Your task to perform on an android device: clear all cookies in the chrome app Image 0: 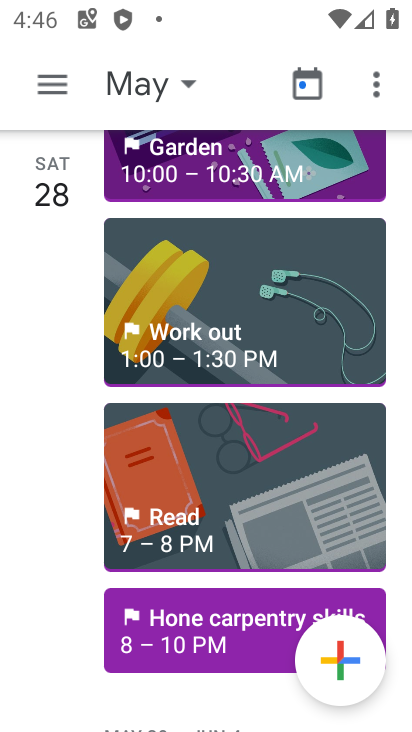
Step 0: press back button
Your task to perform on an android device: clear all cookies in the chrome app Image 1: 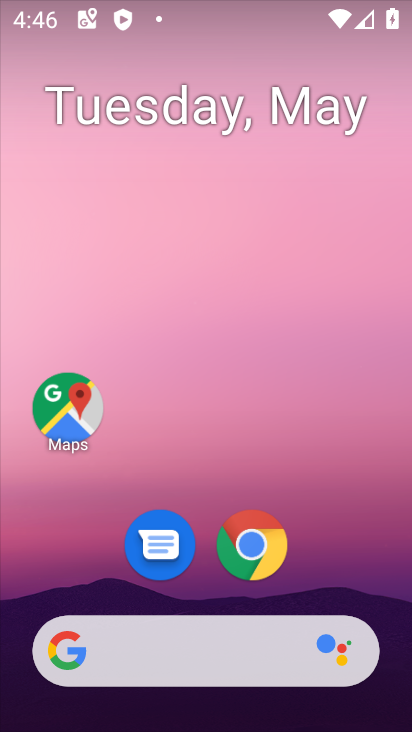
Step 1: drag from (370, 585) to (266, 14)
Your task to perform on an android device: clear all cookies in the chrome app Image 2: 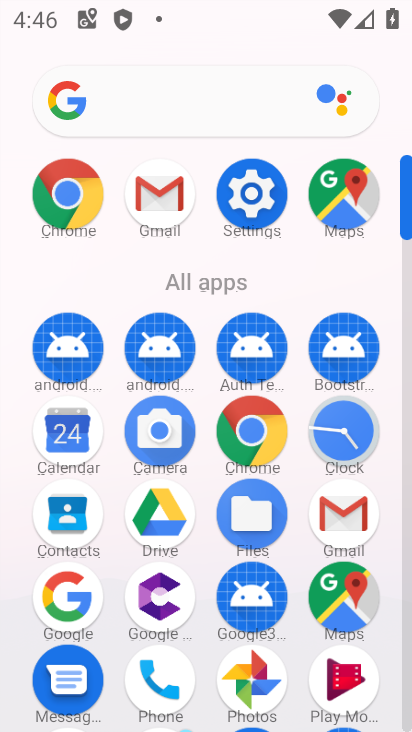
Step 2: drag from (4, 619) to (17, 244)
Your task to perform on an android device: clear all cookies in the chrome app Image 3: 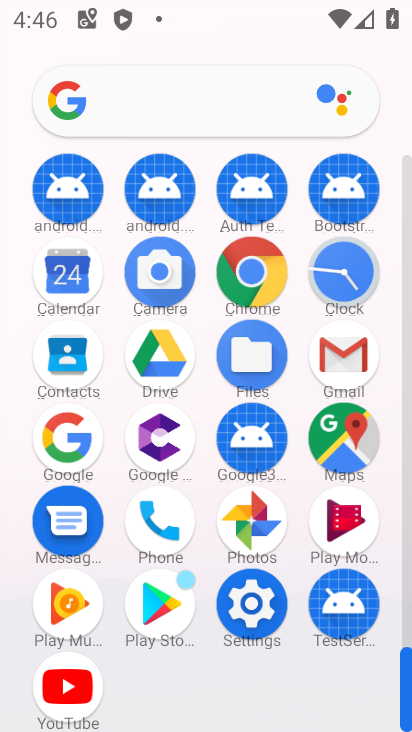
Step 3: drag from (7, 640) to (7, 251)
Your task to perform on an android device: clear all cookies in the chrome app Image 4: 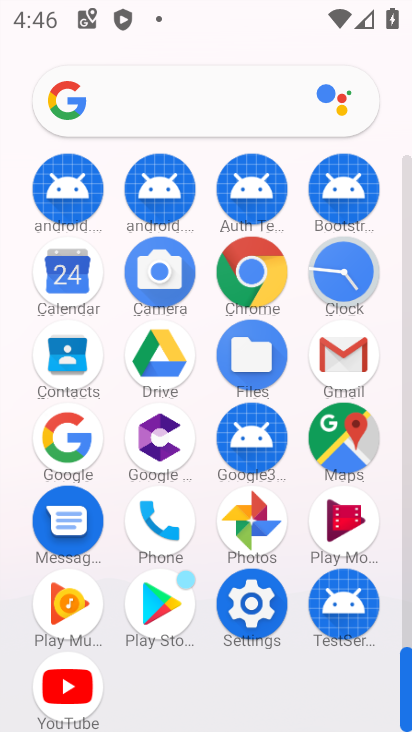
Step 4: click (241, 254)
Your task to perform on an android device: clear all cookies in the chrome app Image 5: 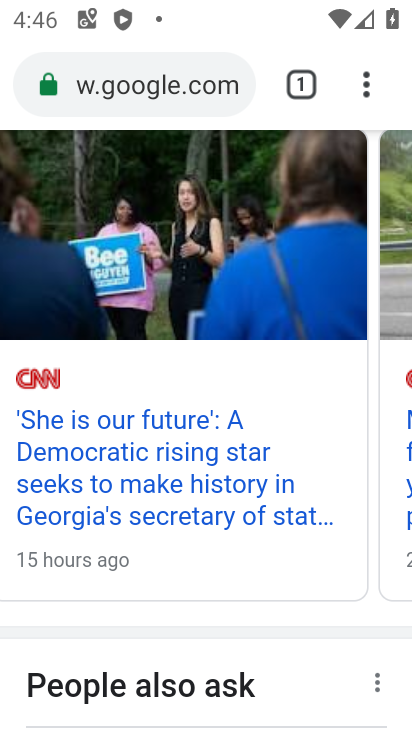
Step 5: drag from (373, 86) to (268, 593)
Your task to perform on an android device: clear all cookies in the chrome app Image 6: 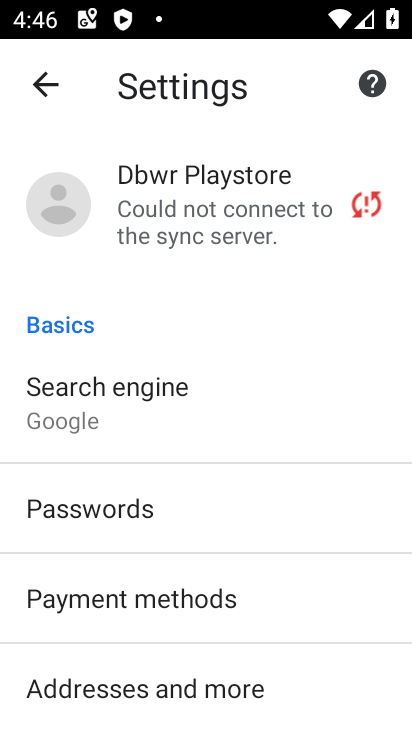
Step 6: drag from (227, 584) to (249, 177)
Your task to perform on an android device: clear all cookies in the chrome app Image 7: 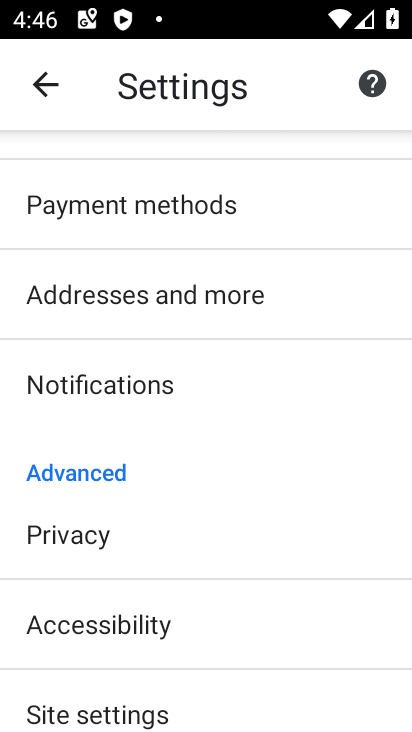
Step 7: drag from (251, 557) to (247, 210)
Your task to perform on an android device: clear all cookies in the chrome app Image 8: 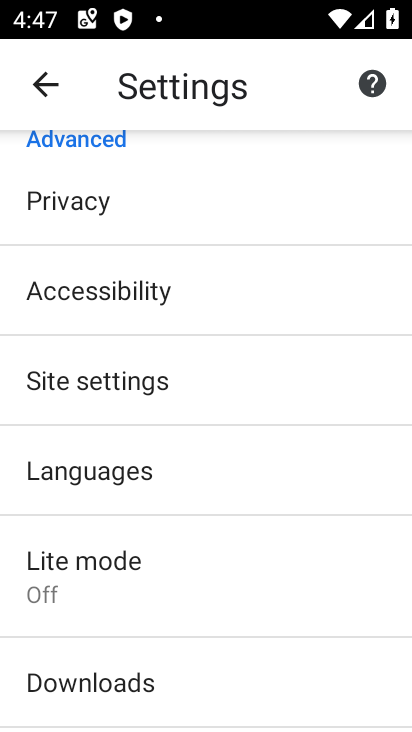
Step 8: drag from (204, 600) to (208, 337)
Your task to perform on an android device: clear all cookies in the chrome app Image 9: 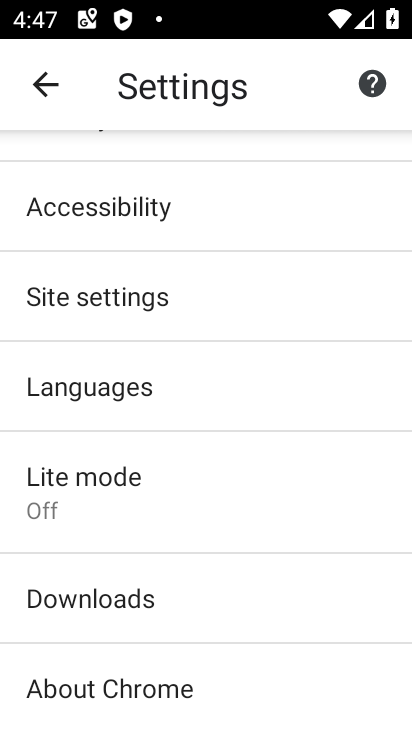
Step 9: drag from (246, 603) to (246, 202)
Your task to perform on an android device: clear all cookies in the chrome app Image 10: 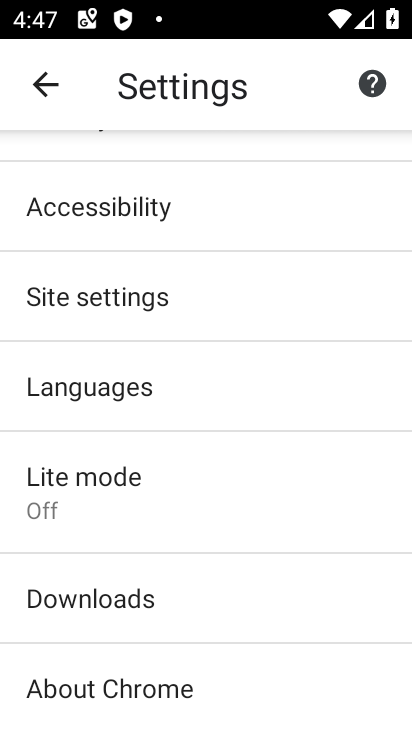
Step 10: drag from (305, 287) to (296, 599)
Your task to perform on an android device: clear all cookies in the chrome app Image 11: 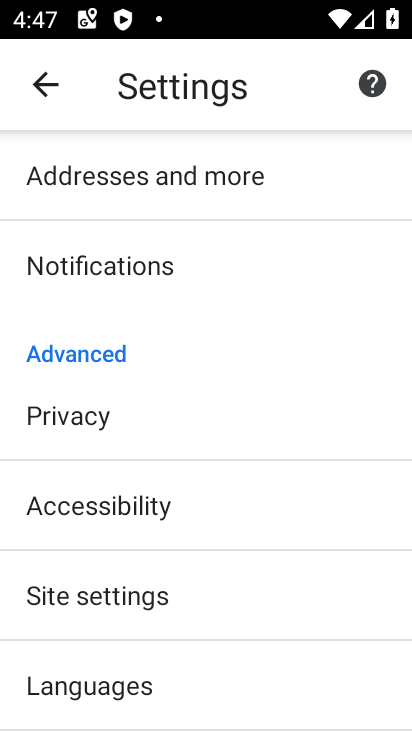
Step 11: drag from (253, 265) to (223, 637)
Your task to perform on an android device: clear all cookies in the chrome app Image 12: 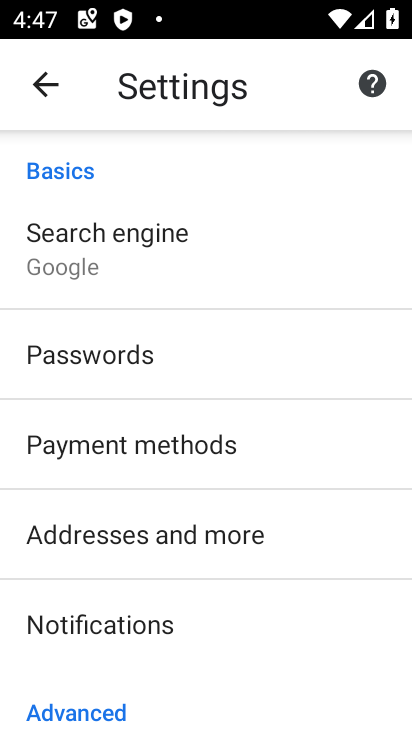
Step 12: drag from (214, 277) to (225, 604)
Your task to perform on an android device: clear all cookies in the chrome app Image 13: 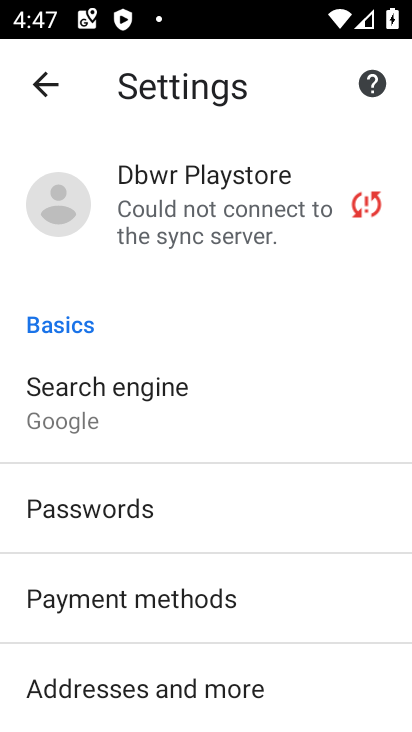
Step 13: drag from (244, 593) to (276, 245)
Your task to perform on an android device: clear all cookies in the chrome app Image 14: 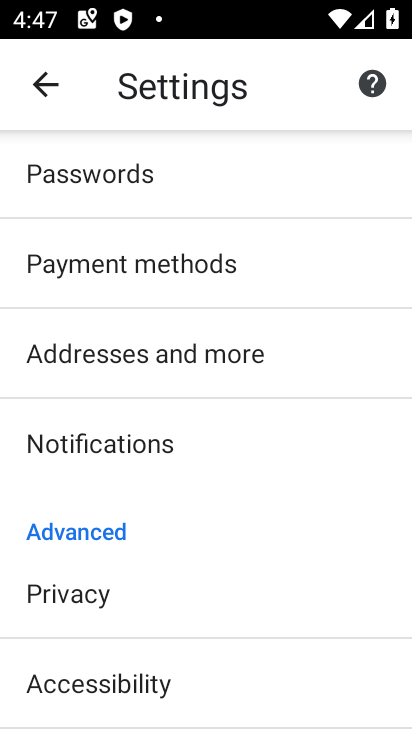
Step 14: drag from (246, 593) to (272, 283)
Your task to perform on an android device: clear all cookies in the chrome app Image 15: 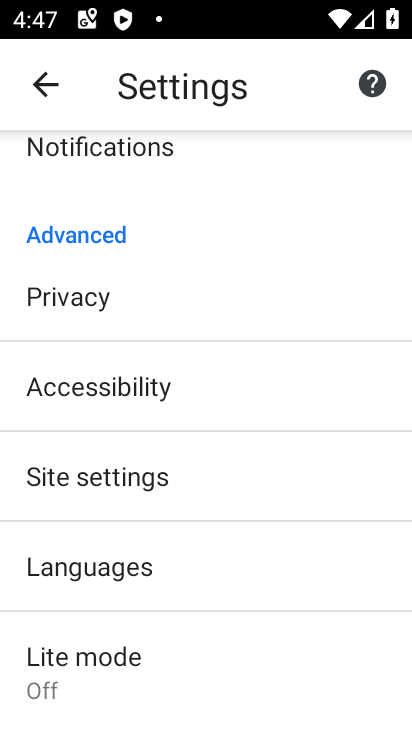
Step 15: click (142, 307)
Your task to perform on an android device: clear all cookies in the chrome app Image 16: 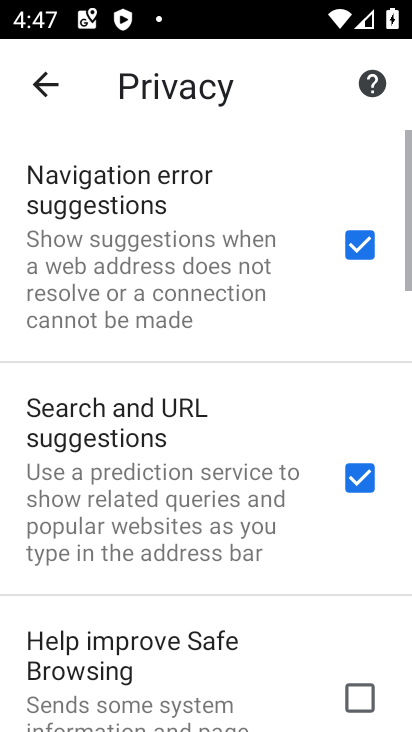
Step 16: drag from (234, 655) to (266, 135)
Your task to perform on an android device: clear all cookies in the chrome app Image 17: 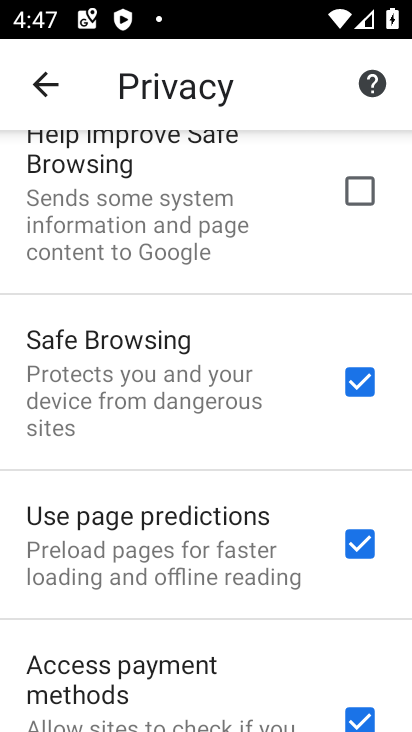
Step 17: drag from (120, 581) to (179, 136)
Your task to perform on an android device: clear all cookies in the chrome app Image 18: 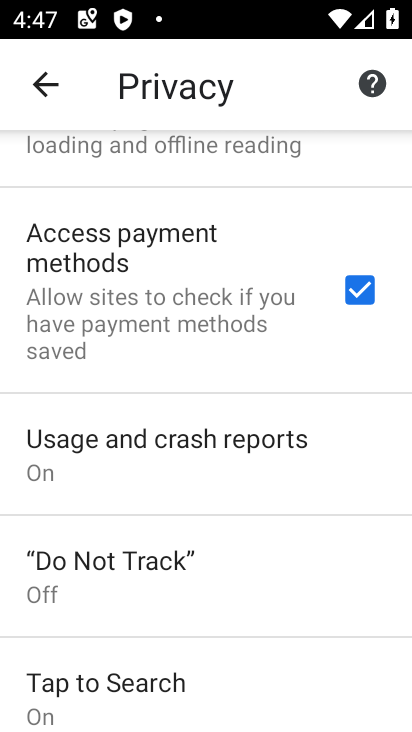
Step 18: drag from (141, 622) to (192, 159)
Your task to perform on an android device: clear all cookies in the chrome app Image 19: 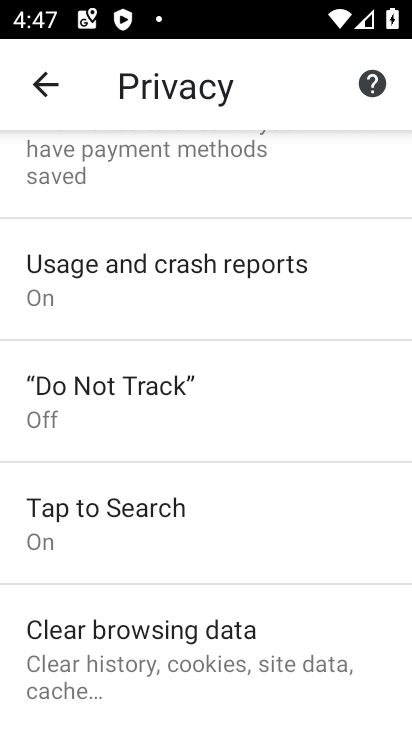
Step 19: click (145, 567)
Your task to perform on an android device: clear all cookies in the chrome app Image 20: 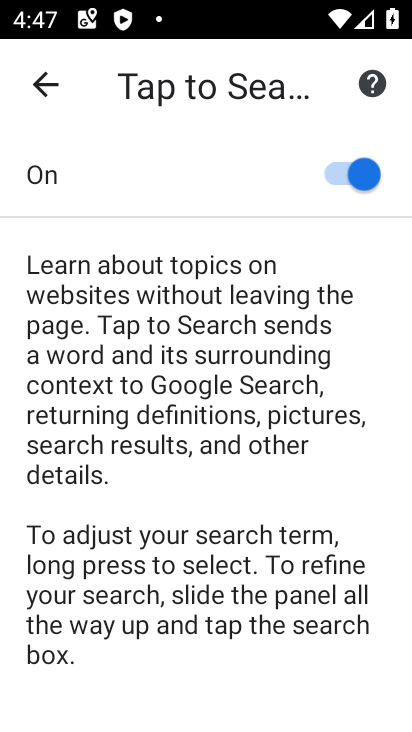
Step 20: click (74, 95)
Your task to perform on an android device: clear all cookies in the chrome app Image 21: 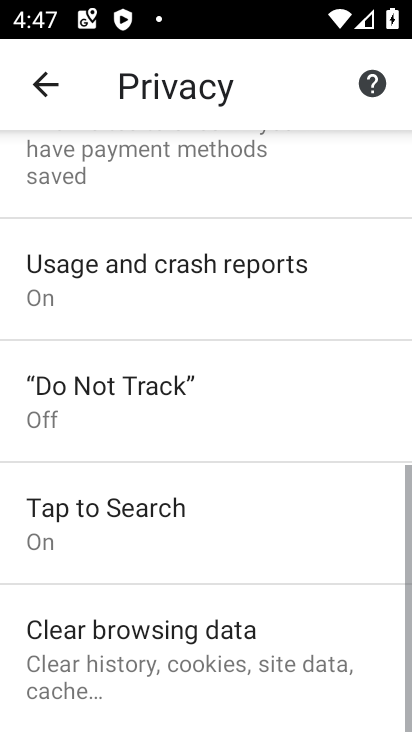
Step 21: click (94, 669)
Your task to perform on an android device: clear all cookies in the chrome app Image 22: 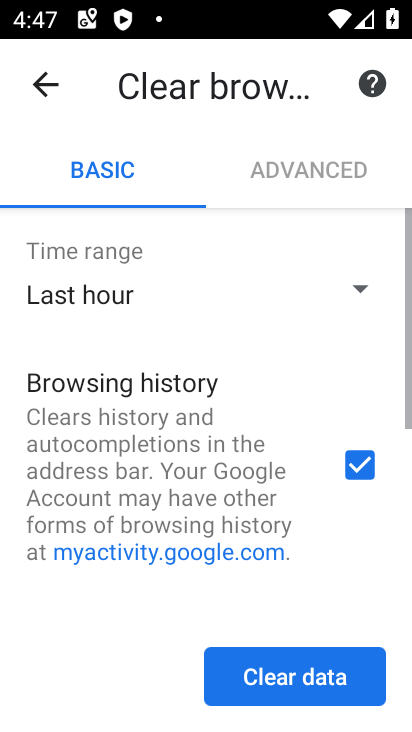
Step 22: drag from (174, 578) to (237, 199)
Your task to perform on an android device: clear all cookies in the chrome app Image 23: 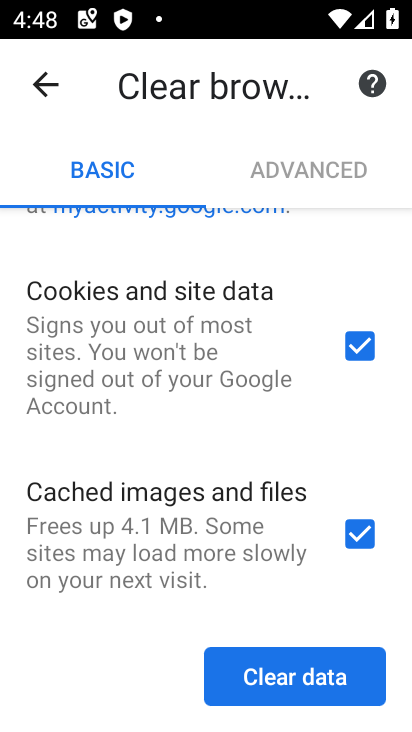
Step 23: click (360, 521)
Your task to perform on an android device: clear all cookies in the chrome app Image 24: 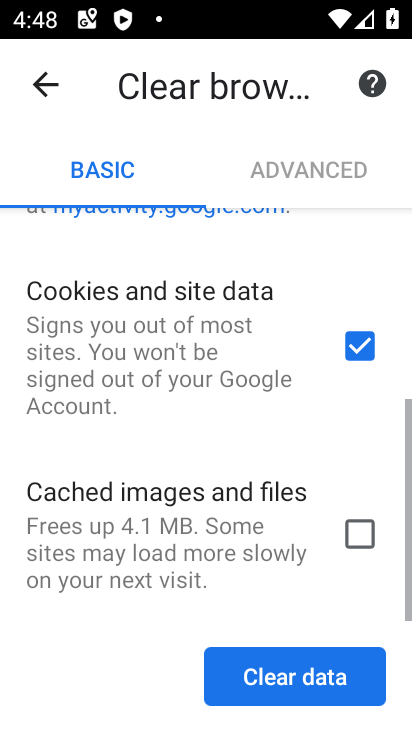
Step 24: drag from (204, 305) to (162, 540)
Your task to perform on an android device: clear all cookies in the chrome app Image 25: 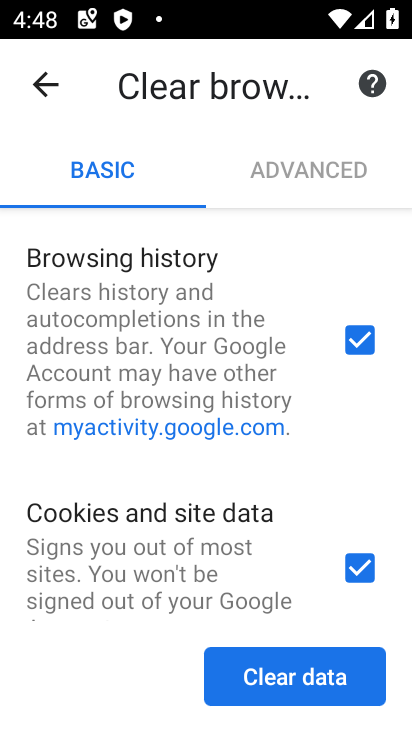
Step 25: click (354, 331)
Your task to perform on an android device: clear all cookies in the chrome app Image 26: 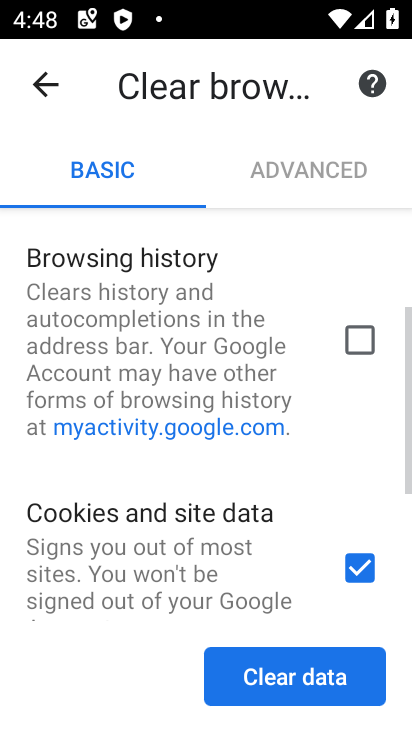
Step 26: click (277, 686)
Your task to perform on an android device: clear all cookies in the chrome app Image 27: 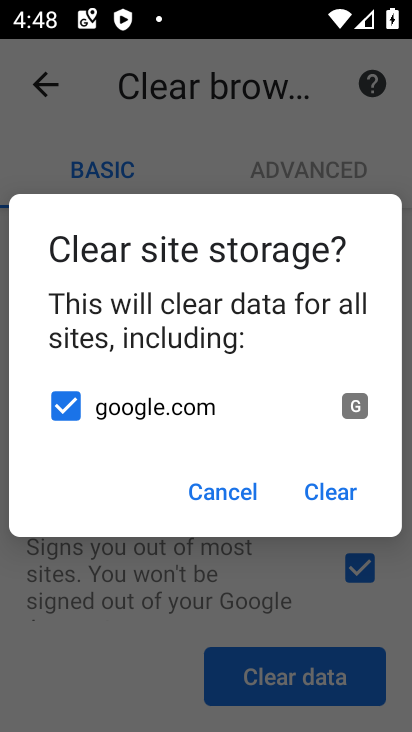
Step 27: click (333, 486)
Your task to perform on an android device: clear all cookies in the chrome app Image 28: 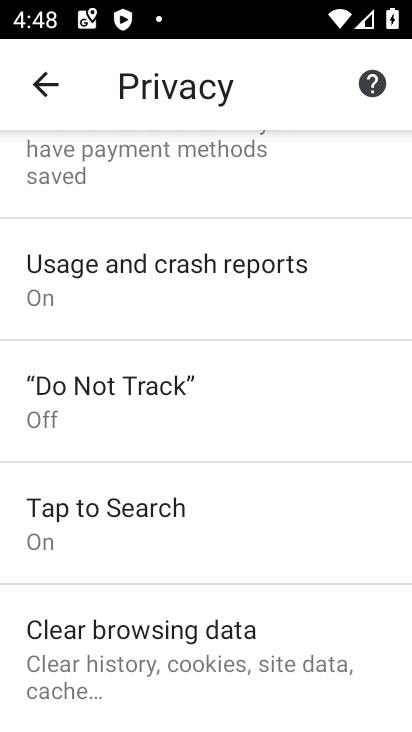
Step 28: task complete